Your task to perform on an android device: Open Google Image 0: 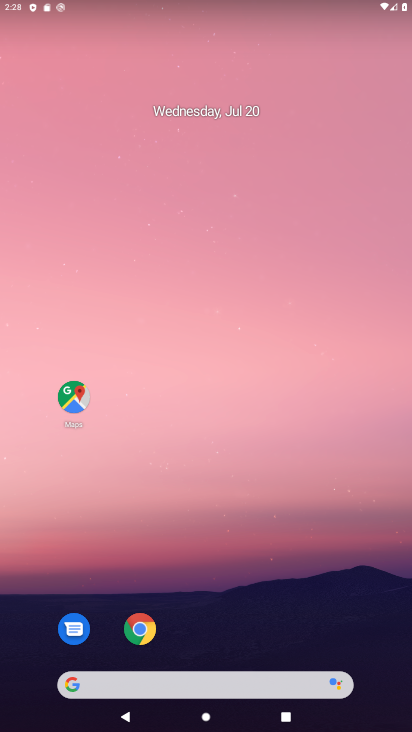
Step 0: drag from (237, 662) to (286, 215)
Your task to perform on an android device: Open Google Image 1: 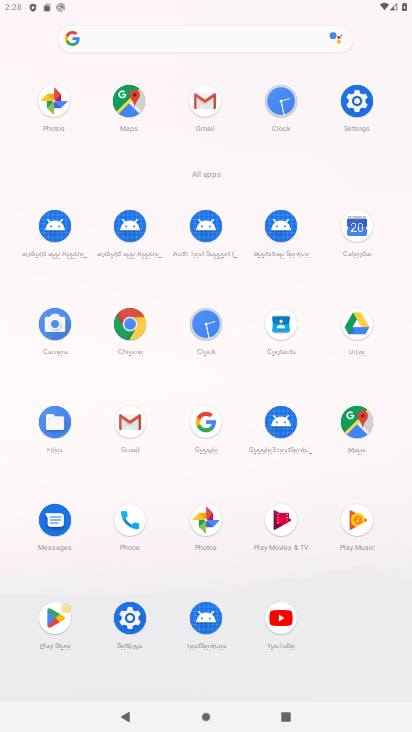
Step 1: click (211, 420)
Your task to perform on an android device: Open Google Image 2: 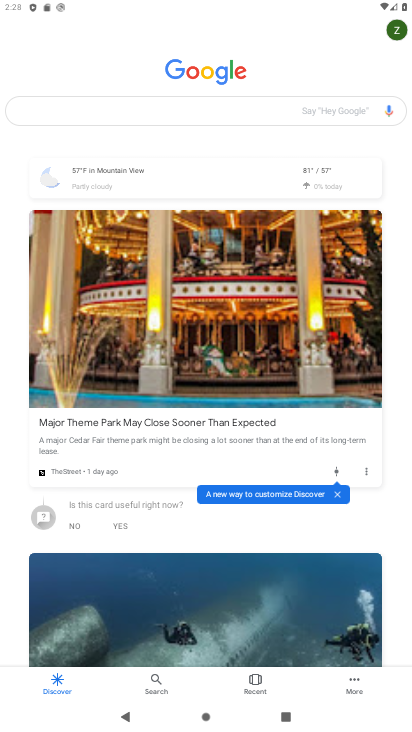
Step 2: task complete